Your task to perform on an android device: change notification settings in the gmail app Image 0: 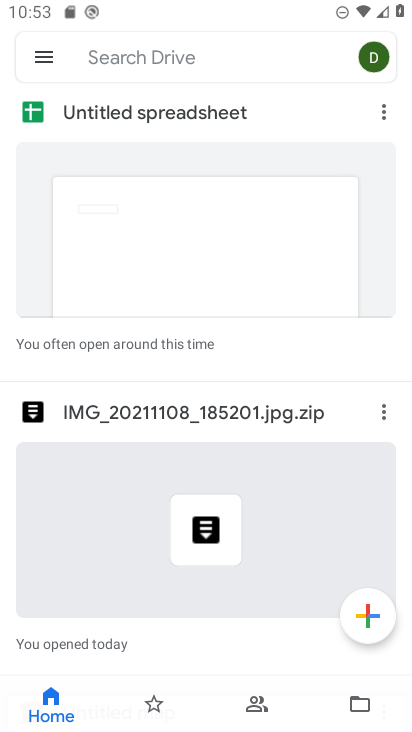
Step 0: press home button
Your task to perform on an android device: change notification settings in the gmail app Image 1: 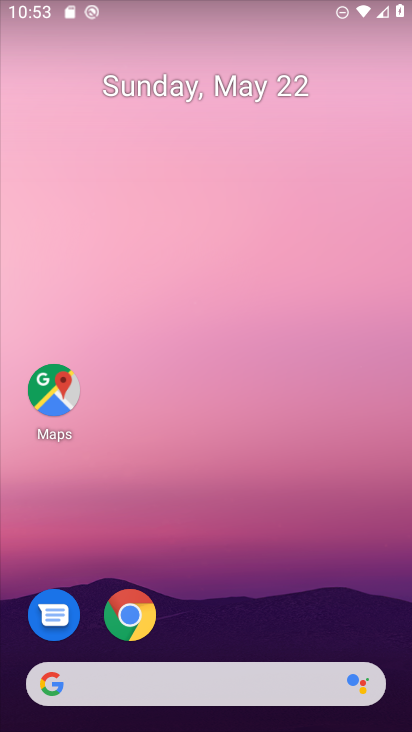
Step 1: drag from (261, 609) to (262, 57)
Your task to perform on an android device: change notification settings in the gmail app Image 2: 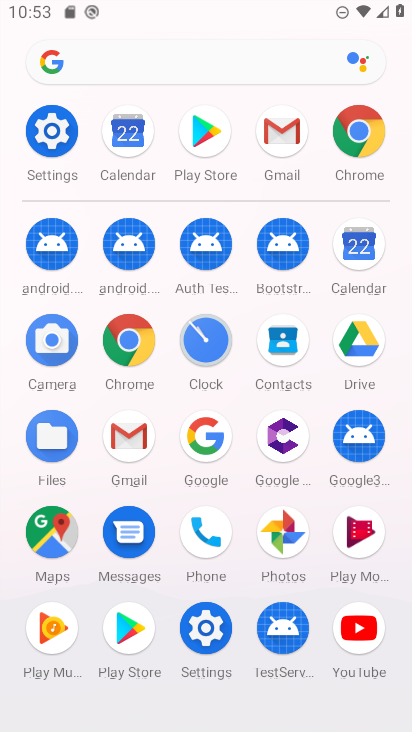
Step 2: click (59, 131)
Your task to perform on an android device: change notification settings in the gmail app Image 3: 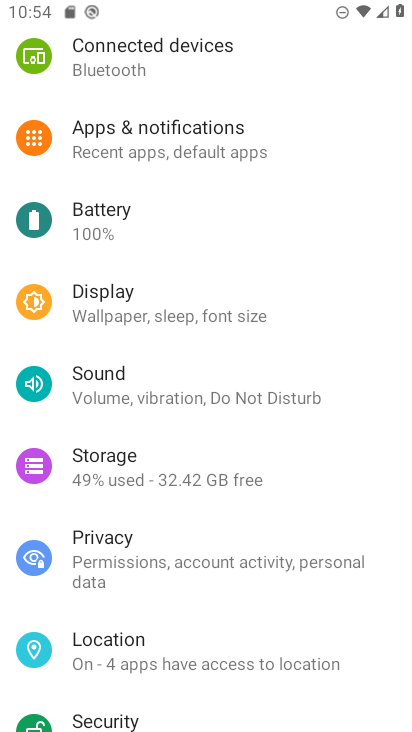
Step 3: click (222, 146)
Your task to perform on an android device: change notification settings in the gmail app Image 4: 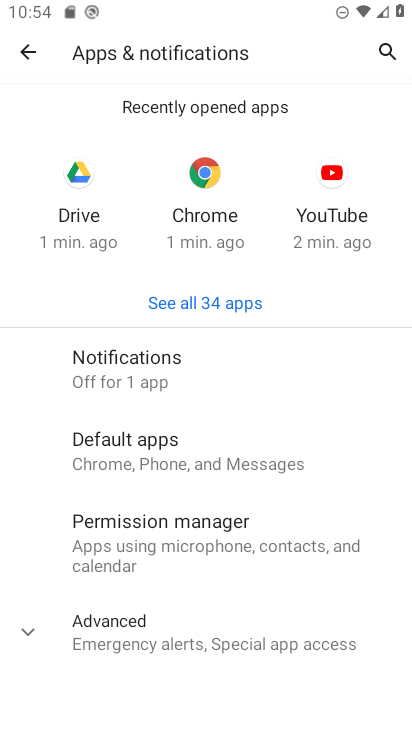
Step 4: press home button
Your task to perform on an android device: change notification settings in the gmail app Image 5: 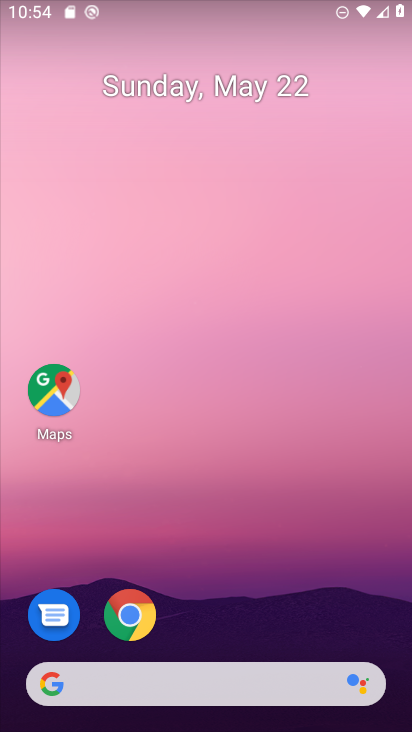
Step 5: drag from (231, 605) to (215, 138)
Your task to perform on an android device: change notification settings in the gmail app Image 6: 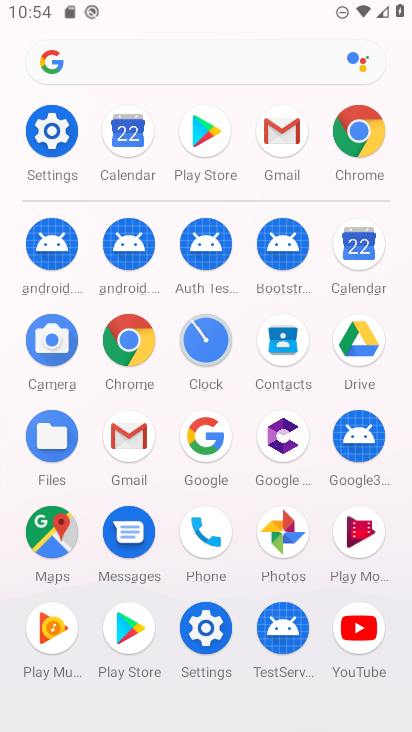
Step 6: click (269, 129)
Your task to perform on an android device: change notification settings in the gmail app Image 7: 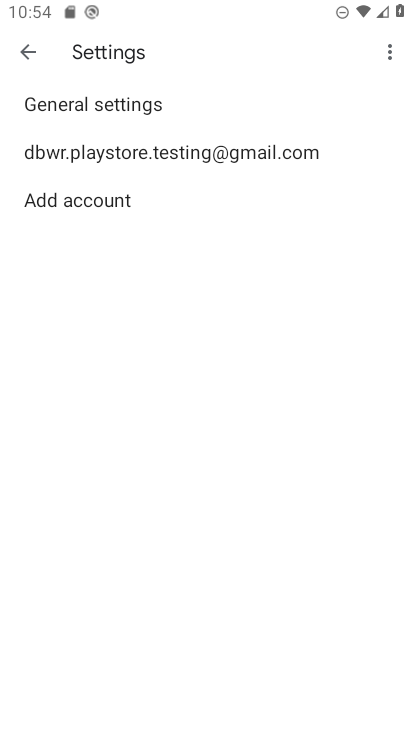
Step 7: click (126, 151)
Your task to perform on an android device: change notification settings in the gmail app Image 8: 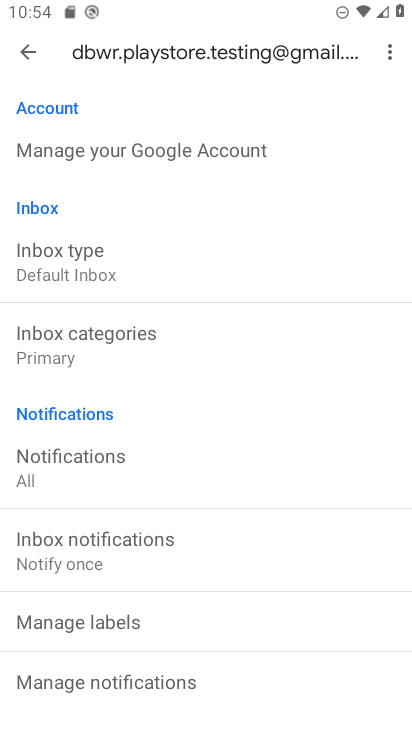
Step 8: click (107, 458)
Your task to perform on an android device: change notification settings in the gmail app Image 9: 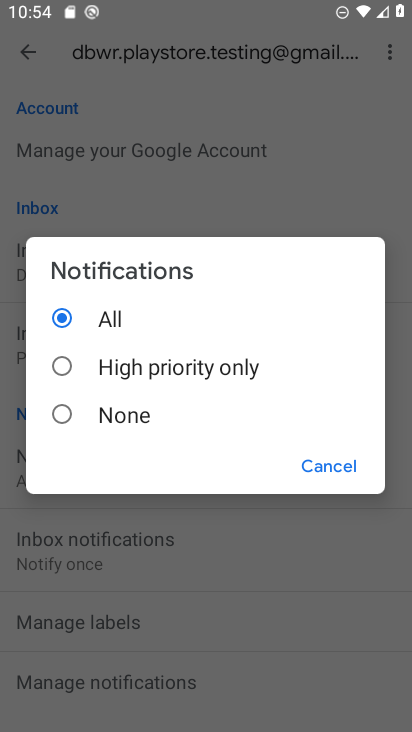
Step 9: click (69, 39)
Your task to perform on an android device: change notification settings in the gmail app Image 10: 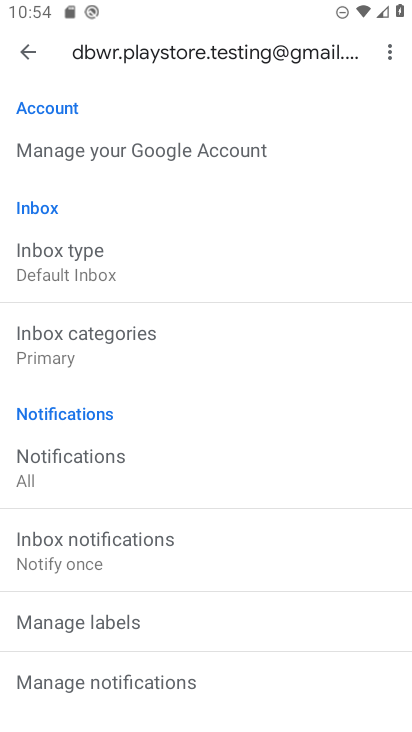
Step 10: click (144, 697)
Your task to perform on an android device: change notification settings in the gmail app Image 11: 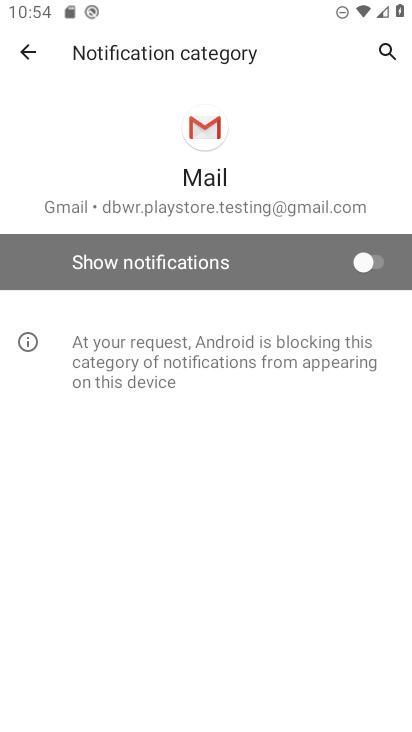
Step 11: click (357, 254)
Your task to perform on an android device: change notification settings in the gmail app Image 12: 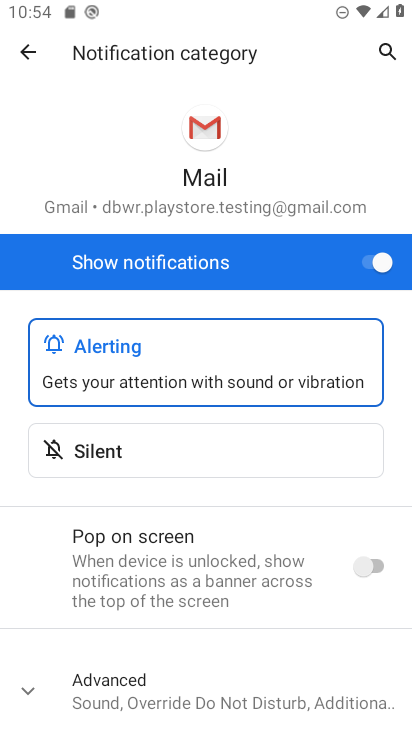
Step 12: task complete